Your task to perform on an android device: refresh tabs in the chrome app Image 0: 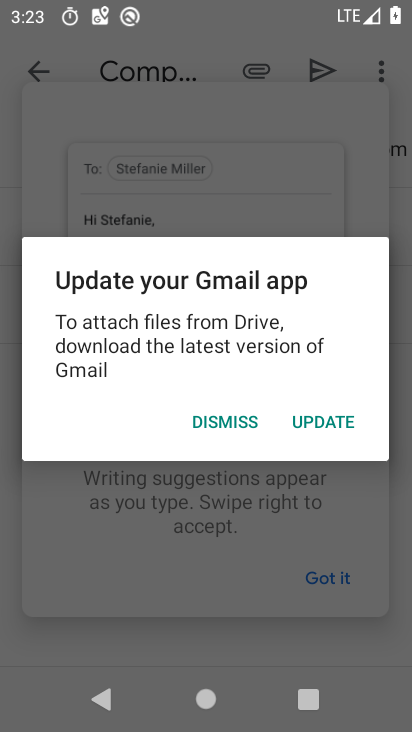
Step 0: click (231, 421)
Your task to perform on an android device: refresh tabs in the chrome app Image 1: 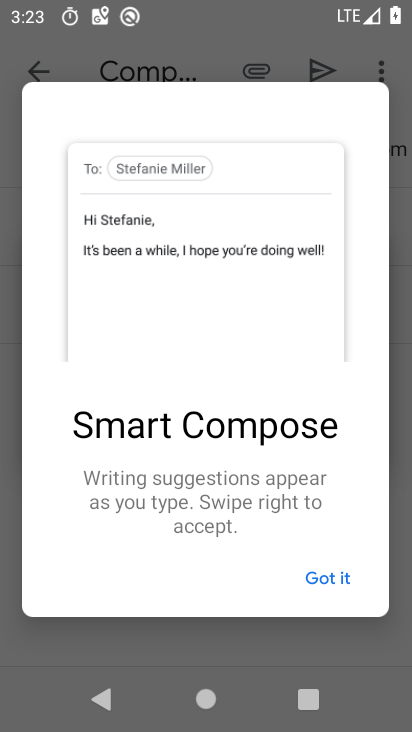
Step 1: click (339, 574)
Your task to perform on an android device: refresh tabs in the chrome app Image 2: 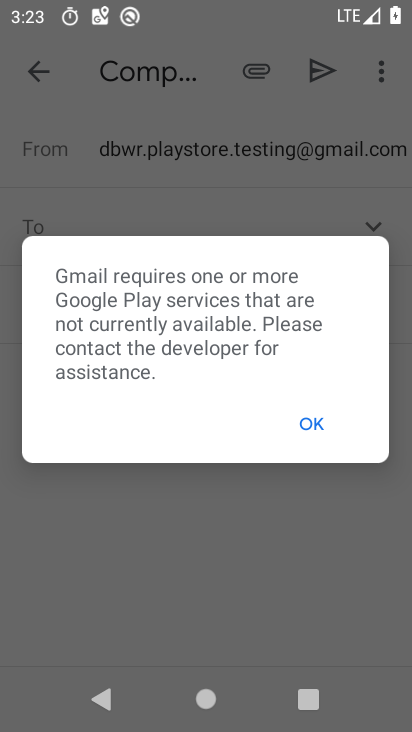
Step 2: click (316, 412)
Your task to perform on an android device: refresh tabs in the chrome app Image 3: 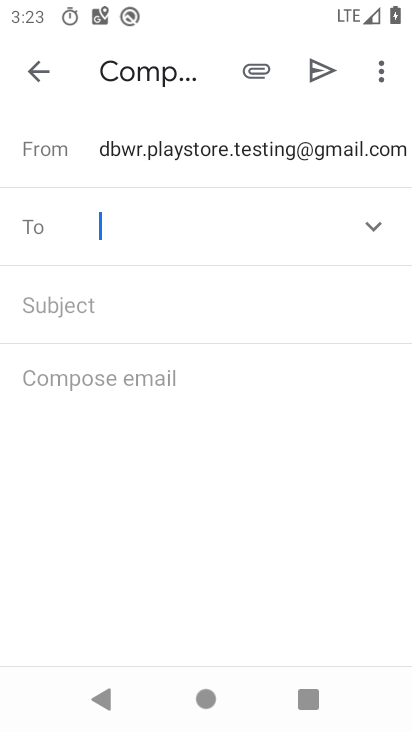
Step 3: press home button
Your task to perform on an android device: refresh tabs in the chrome app Image 4: 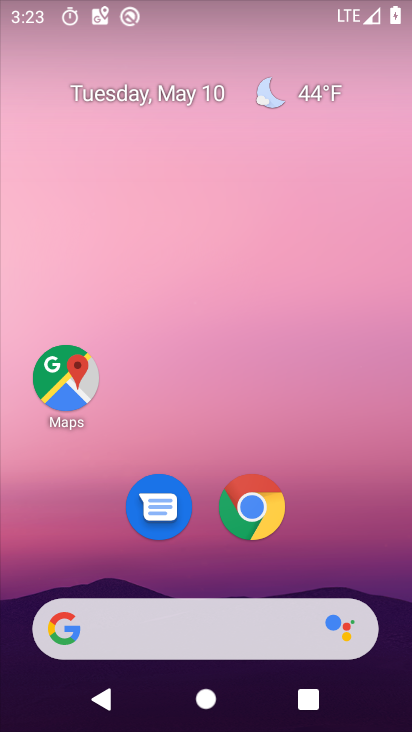
Step 4: click (271, 512)
Your task to perform on an android device: refresh tabs in the chrome app Image 5: 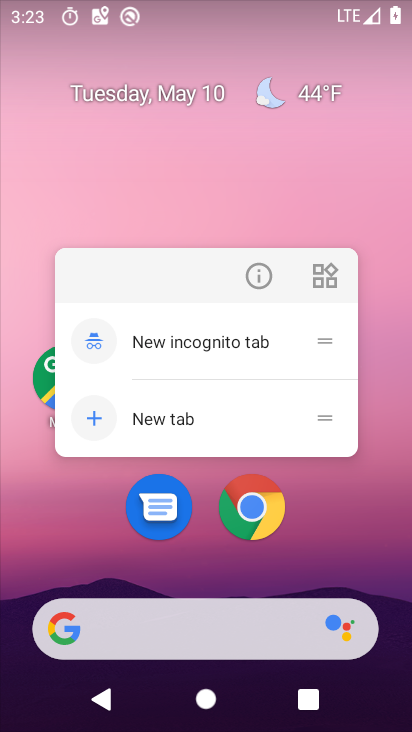
Step 5: click (246, 513)
Your task to perform on an android device: refresh tabs in the chrome app Image 6: 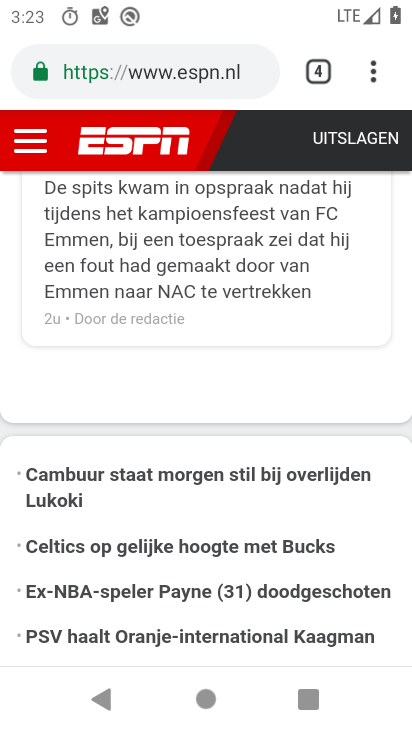
Step 6: click (371, 71)
Your task to perform on an android device: refresh tabs in the chrome app Image 7: 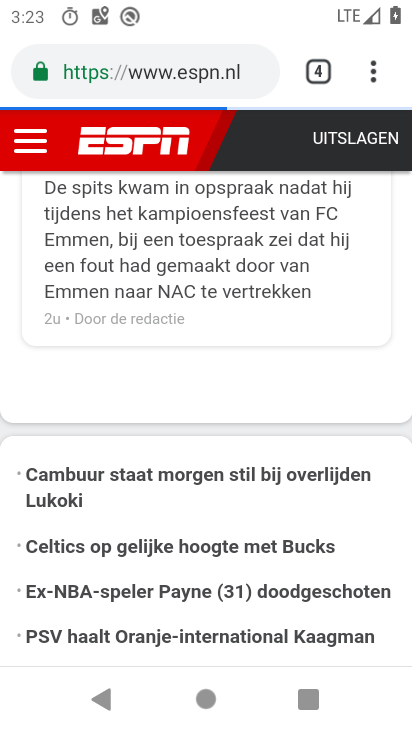
Step 7: click (371, 71)
Your task to perform on an android device: refresh tabs in the chrome app Image 8: 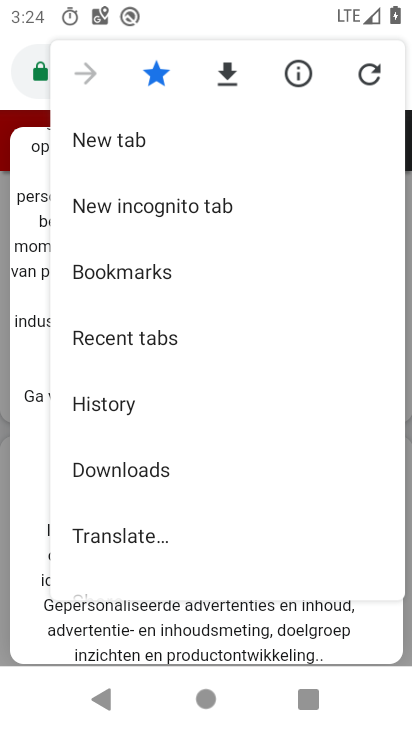
Step 8: click (369, 77)
Your task to perform on an android device: refresh tabs in the chrome app Image 9: 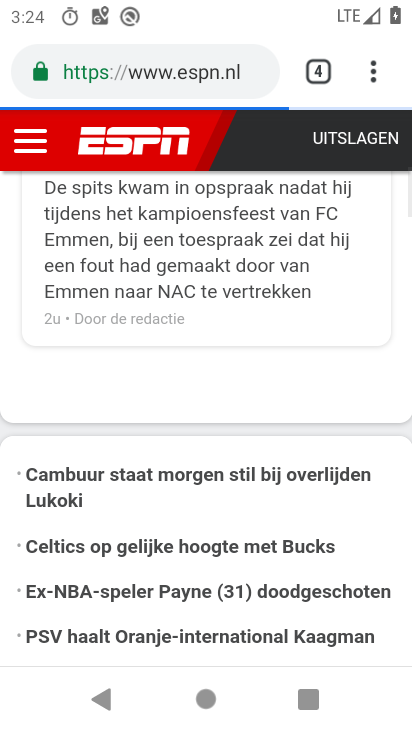
Step 9: task complete